Your task to perform on an android device: turn smart compose on in the gmail app Image 0: 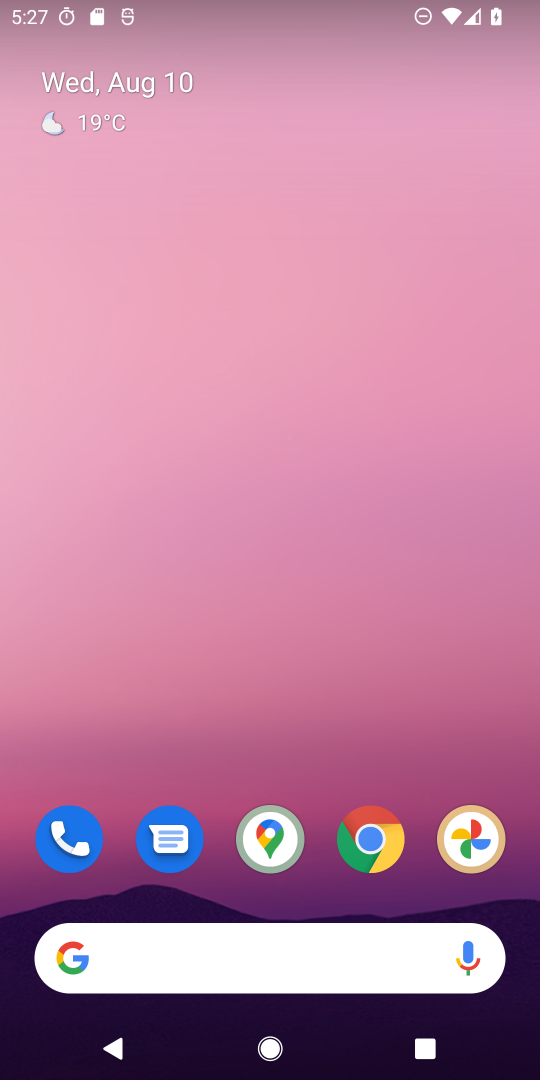
Step 0: drag from (41, 1022) to (271, 270)
Your task to perform on an android device: turn smart compose on in the gmail app Image 1: 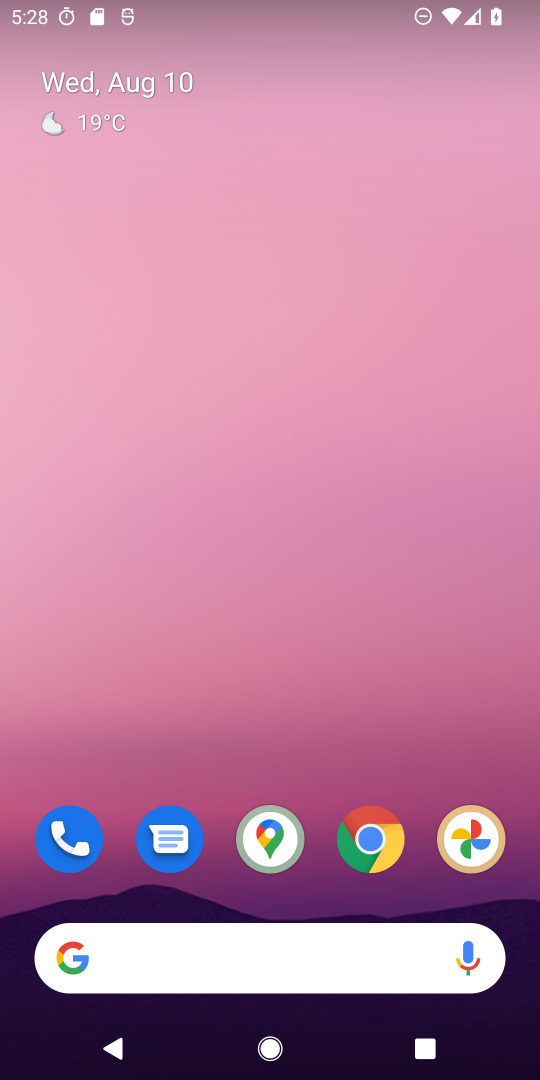
Step 1: drag from (37, 1010) to (268, 471)
Your task to perform on an android device: turn smart compose on in the gmail app Image 2: 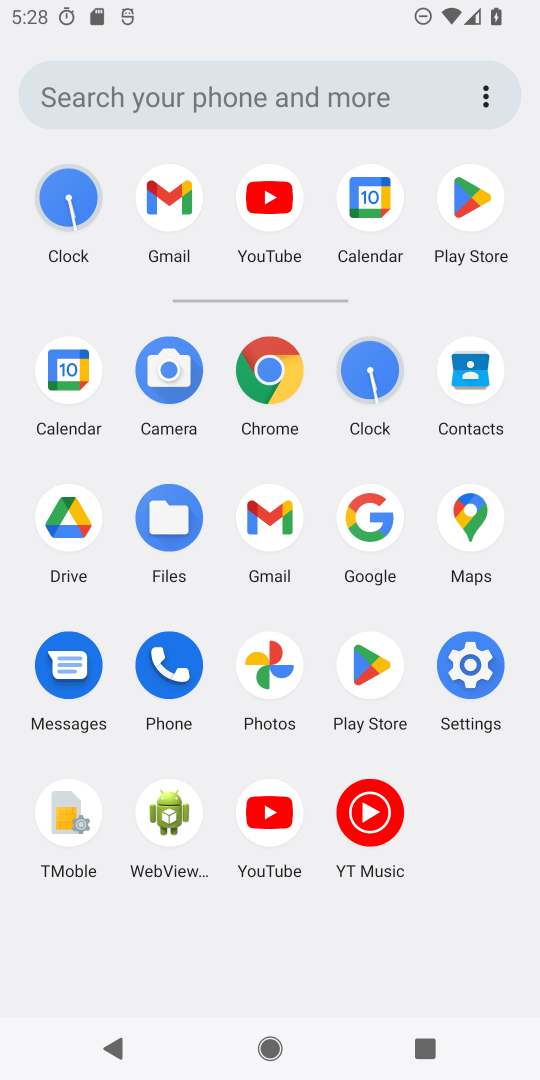
Step 2: click (268, 519)
Your task to perform on an android device: turn smart compose on in the gmail app Image 3: 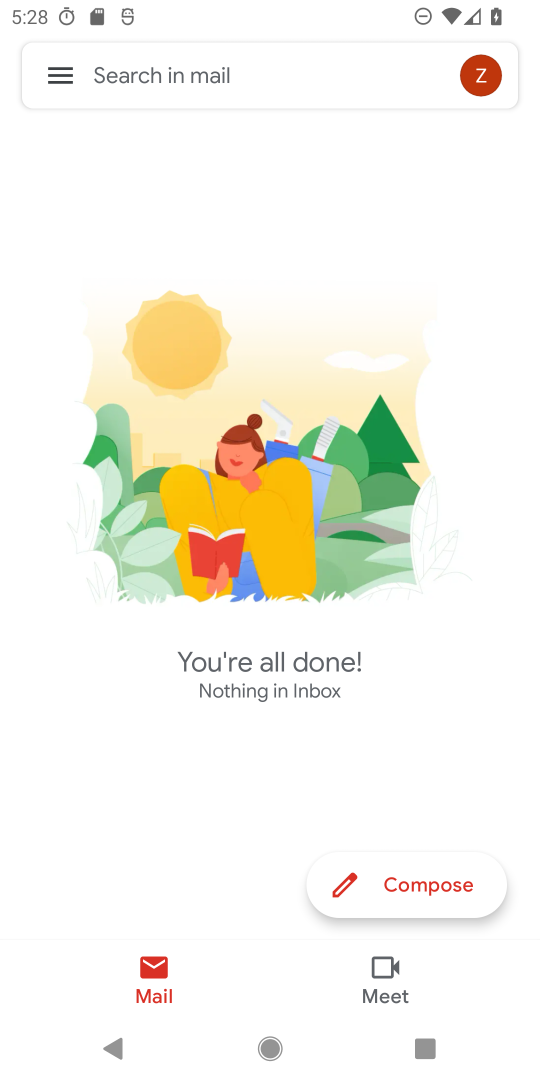
Step 3: click (68, 81)
Your task to perform on an android device: turn smart compose on in the gmail app Image 4: 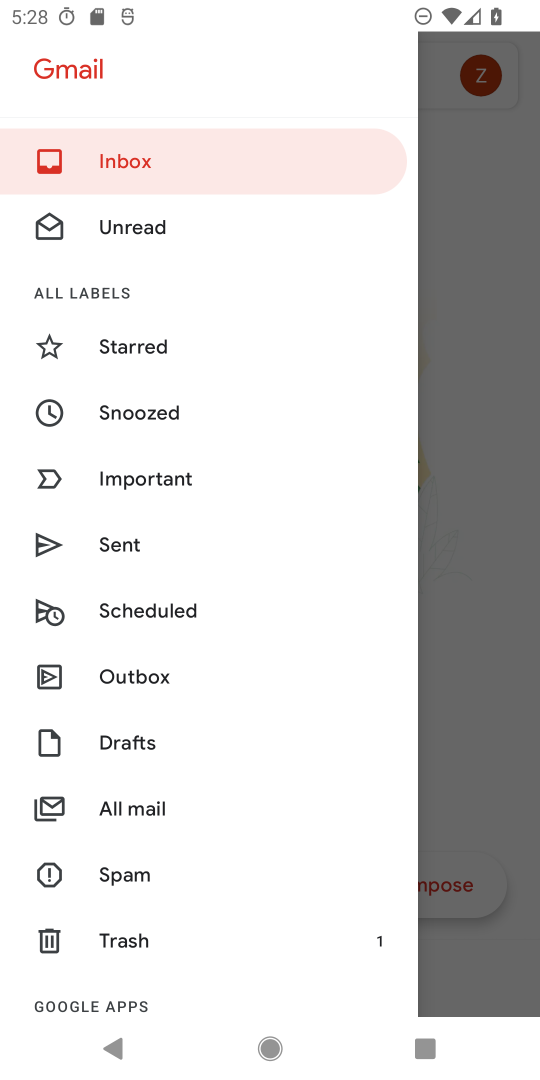
Step 4: drag from (316, 794) to (294, 445)
Your task to perform on an android device: turn smart compose on in the gmail app Image 5: 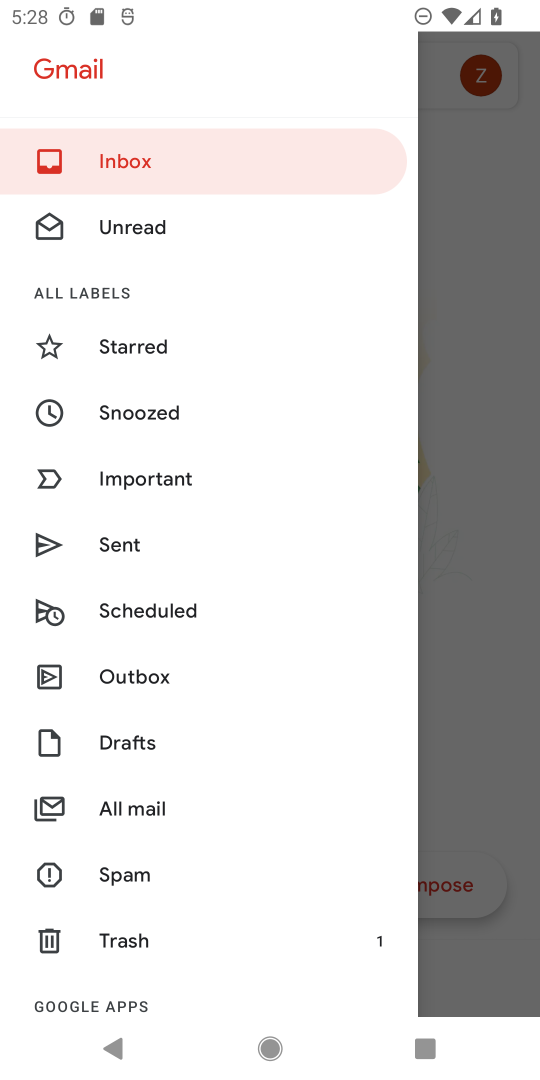
Step 5: drag from (264, 964) to (277, 425)
Your task to perform on an android device: turn smart compose on in the gmail app Image 6: 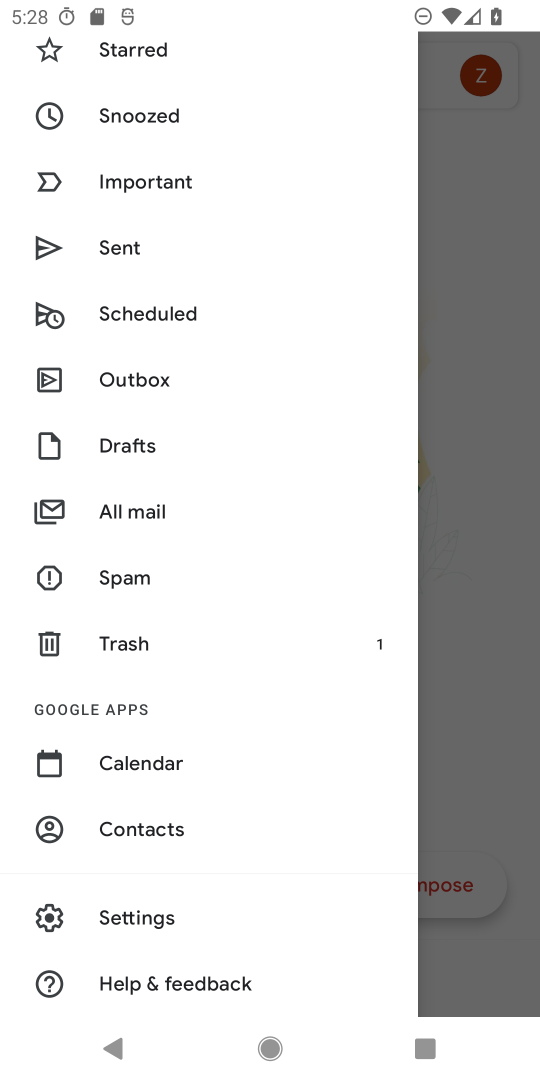
Step 6: click (128, 915)
Your task to perform on an android device: turn smart compose on in the gmail app Image 7: 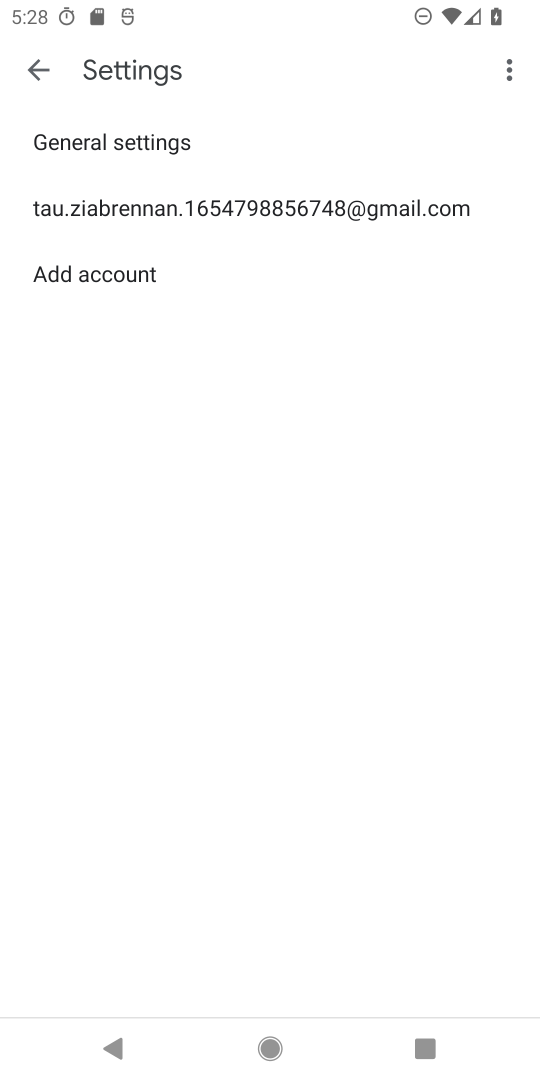
Step 7: click (232, 205)
Your task to perform on an android device: turn smart compose on in the gmail app Image 8: 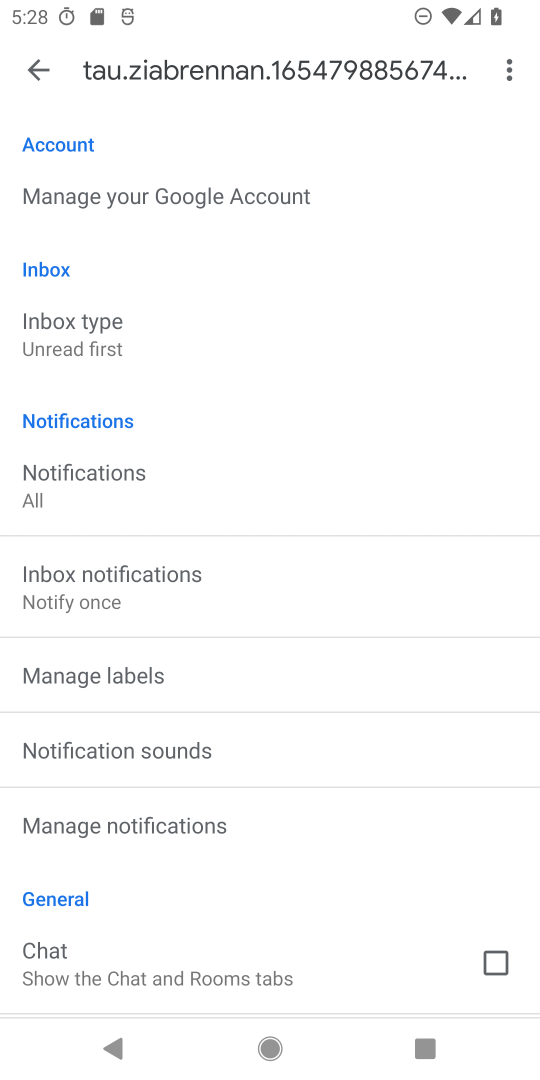
Step 8: task complete